Your task to perform on an android device: turn pop-ups on in chrome Image 0: 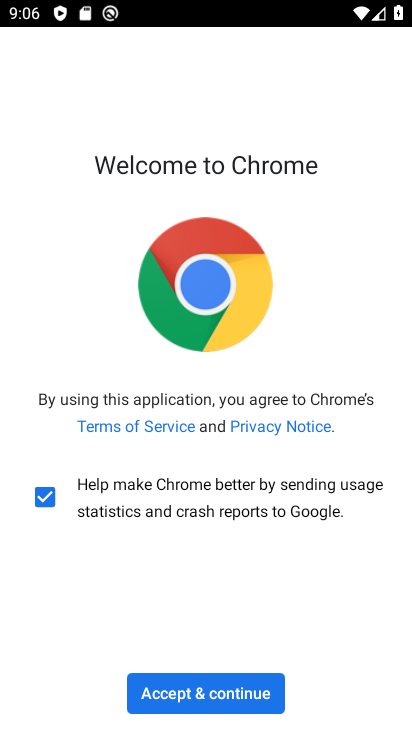
Step 0: press back button
Your task to perform on an android device: turn pop-ups on in chrome Image 1: 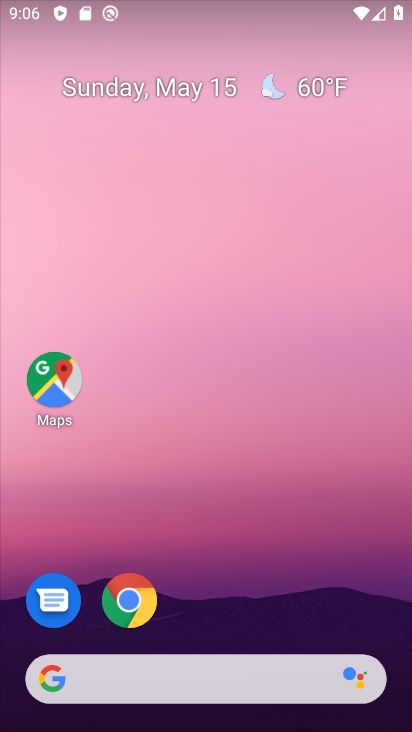
Step 1: drag from (215, 625) to (339, 110)
Your task to perform on an android device: turn pop-ups on in chrome Image 2: 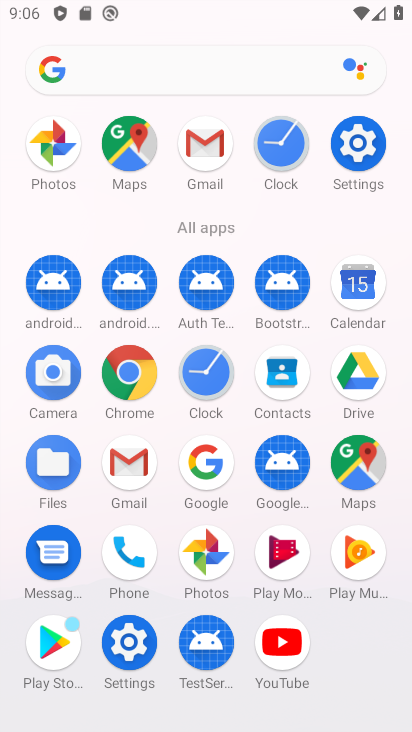
Step 2: click (123, 376)
Your task to perform on an android device: turn pop-ups on in chrome Image 3: 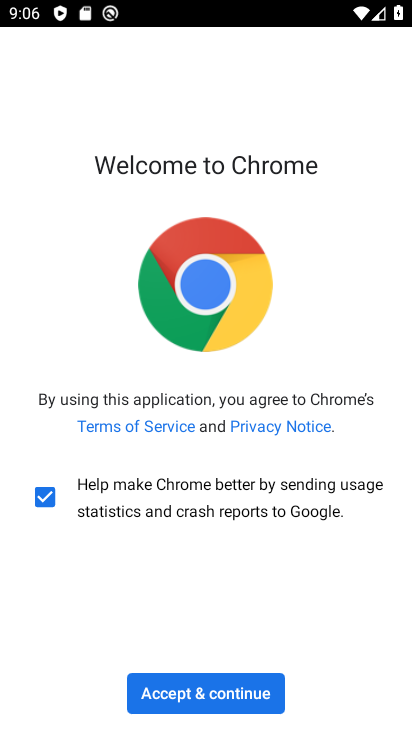
Step 3: click (214, 685)
Your task to perform on an android device: turn pop-ups on in chrome Image 4: 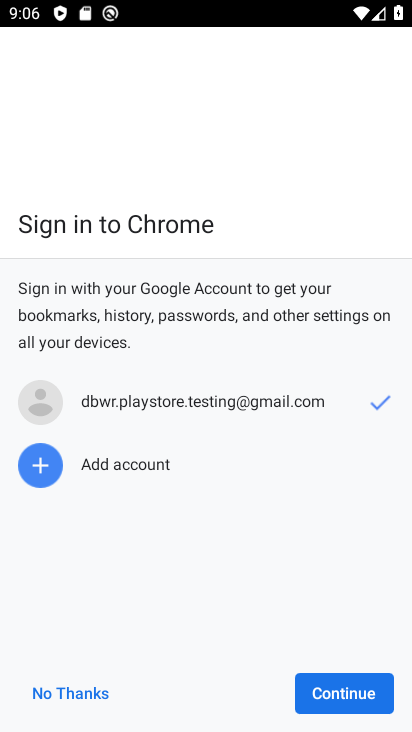
Step 4: click (340, 691)
Your task to perform on an android device: turn pop-ups on in chrome Image 5: 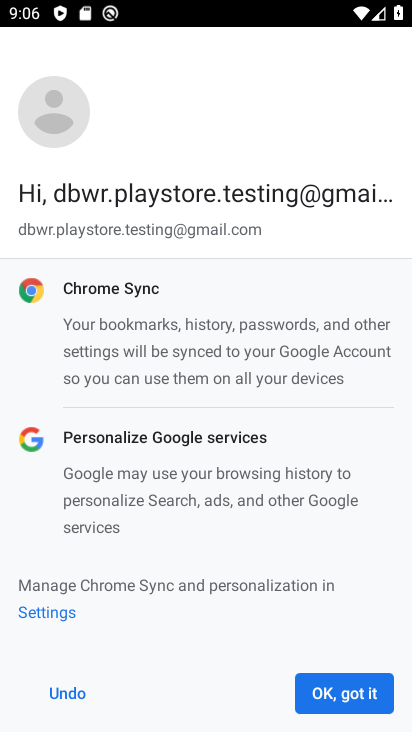
Step 5: click (340, 692)
Your task to perform on an android device: turn pop-ups on in chrome Image 6: 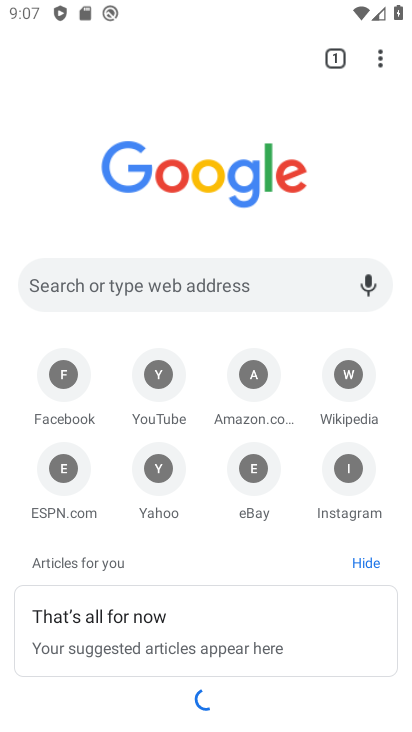
Step 6: drag from (380, 61) to (274, 482)
Your task to perform on an android device: turn pop-ups on in chrome Image 7: 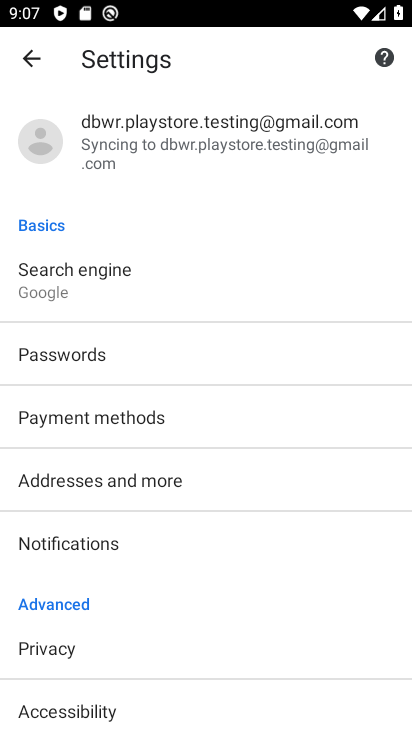
Step 7: drag from (182, 659) to (245, 265)
Your task to perform on an android device: turn pop-ups on in chrome Image 8: 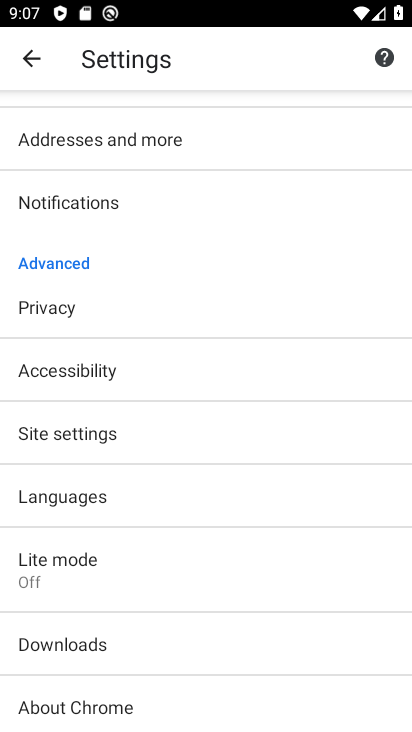
Step 8: click (155, 441)
Your task to perform on an android device: turn pop-ups on in chrome Image 9: 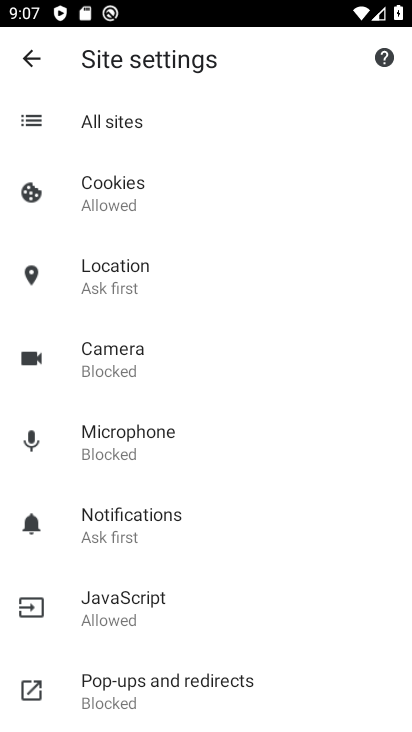
Step 9: click (192, 683)
Your task to perform on an android device: turn pop-ups on in chrome Image 10: 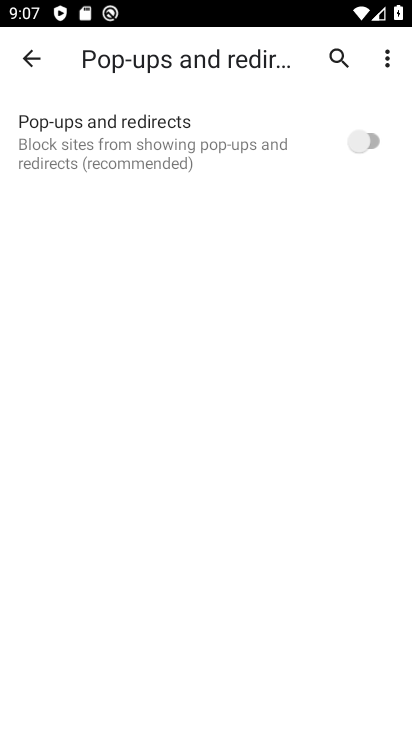
Step 10: click (388, 134)
Your task to perform on an android device: turn pop-ups on in chrome Image 11: 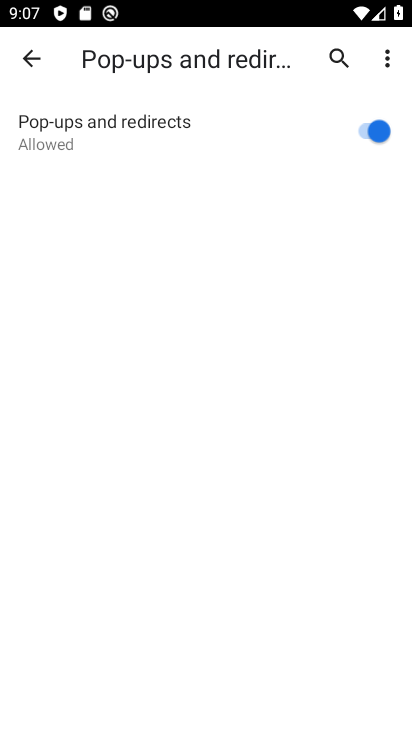
Step 11: task complete